Your task to perform on an android device: check data usage Image 0: 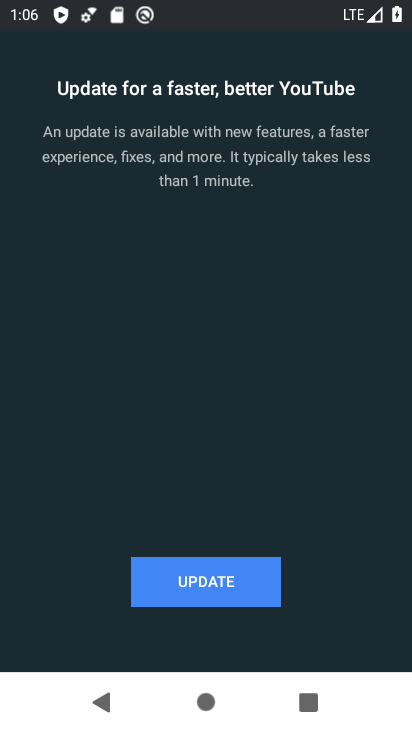
Step 0: press home button
Your task to perform on an android device: check data usage Image 1: 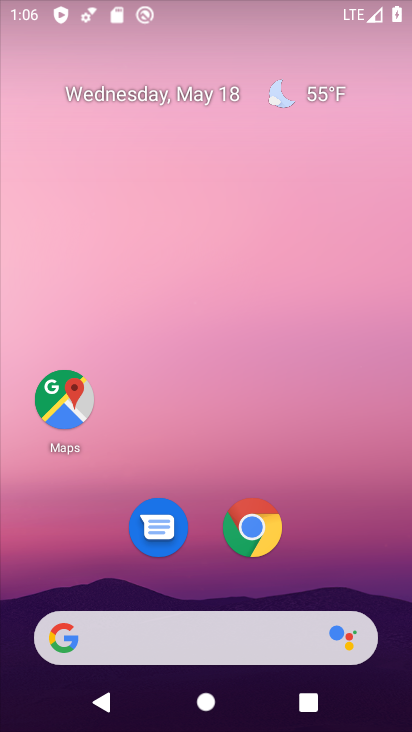
Step 1: drag from (362, 555) to (201, 39)
Your task to perform on an android device: check data usage Image 2: 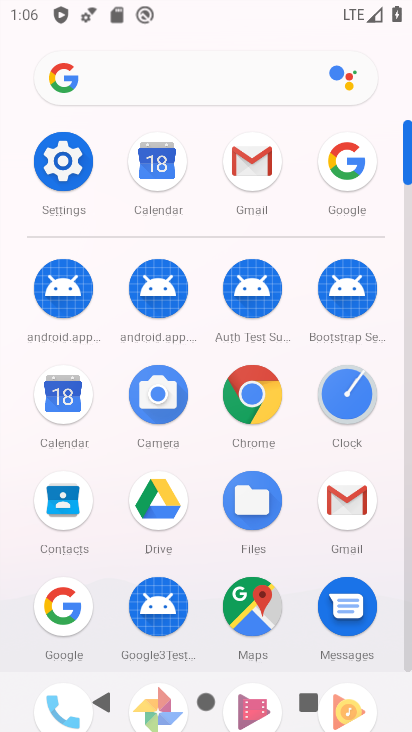
Step 2: click (75, 161)
Your task to perform on an android device: check data usage Image 3: 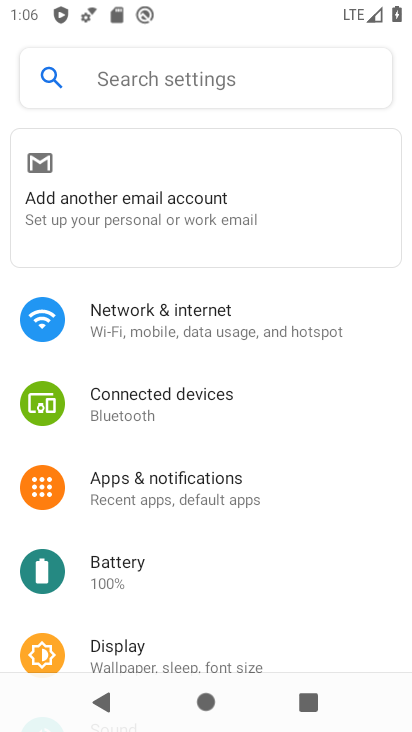
Step 3: click (227, 326)
Your task to perform on an android device: check data usage Image 4: 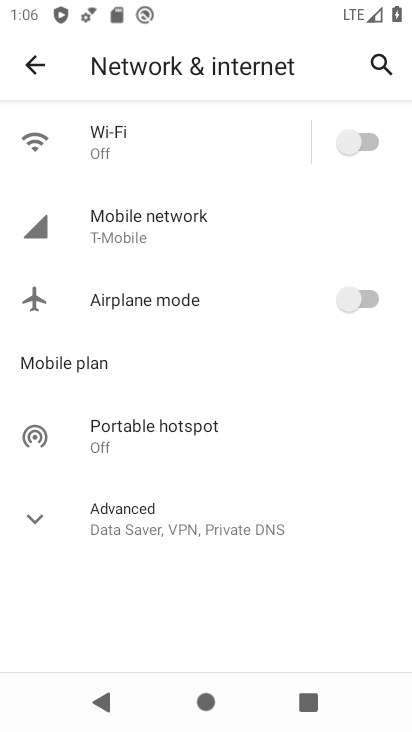
Step 4: click (179, 213)
Your task to perform on an android device: check data usage Image 5: 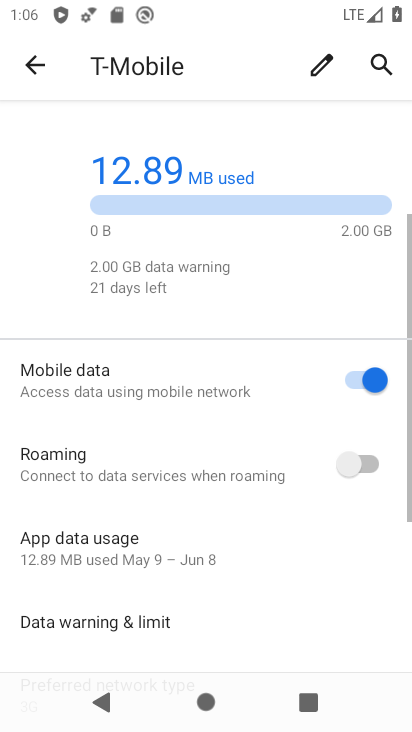
Step 5: task complete